Your task to perform on an android device: Add "razer naga" to the cart on target.com, then select checkout. Image 0: 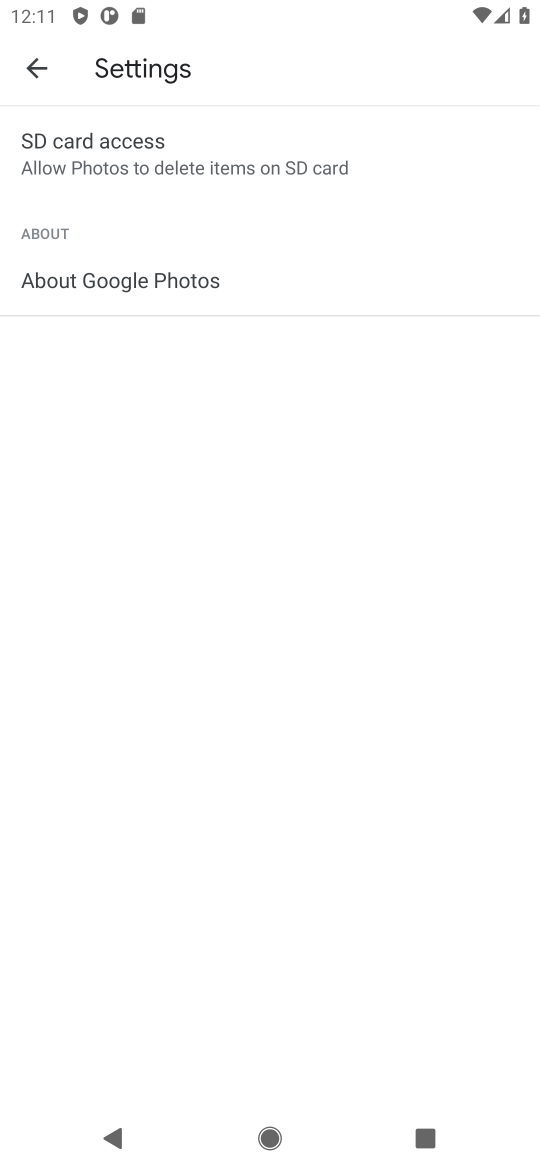
Step 0: press home button
Your task to perform on an android device: Add "razer naga" to the cart on target.com, then select checkout. Image 1: 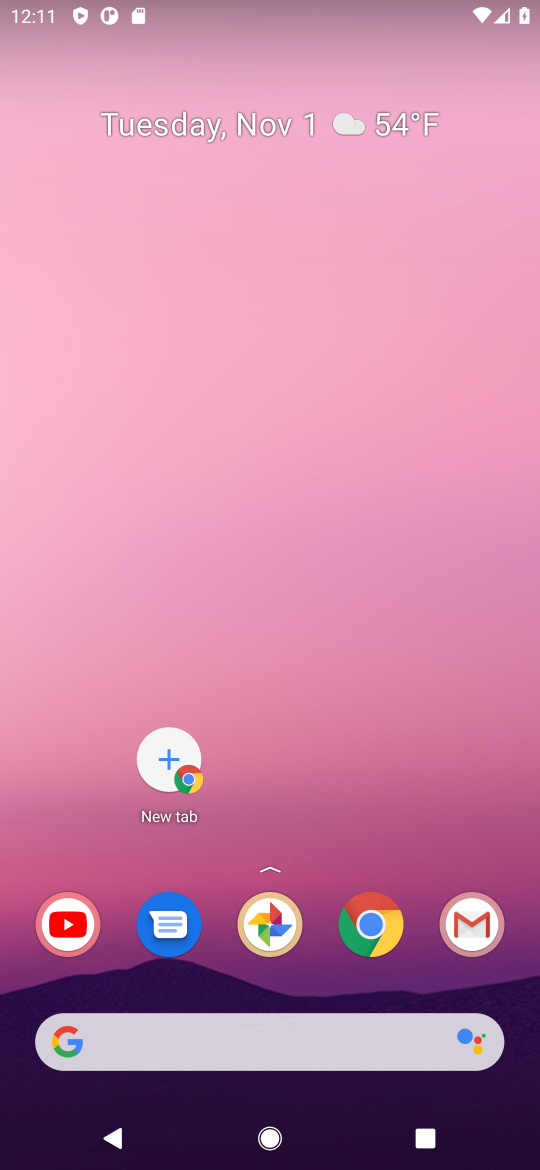
Step 1: click (366, 930)
Your task to perform on an android device: Add "razer naga" to the cart on target.com, then select checkout. Image 2: 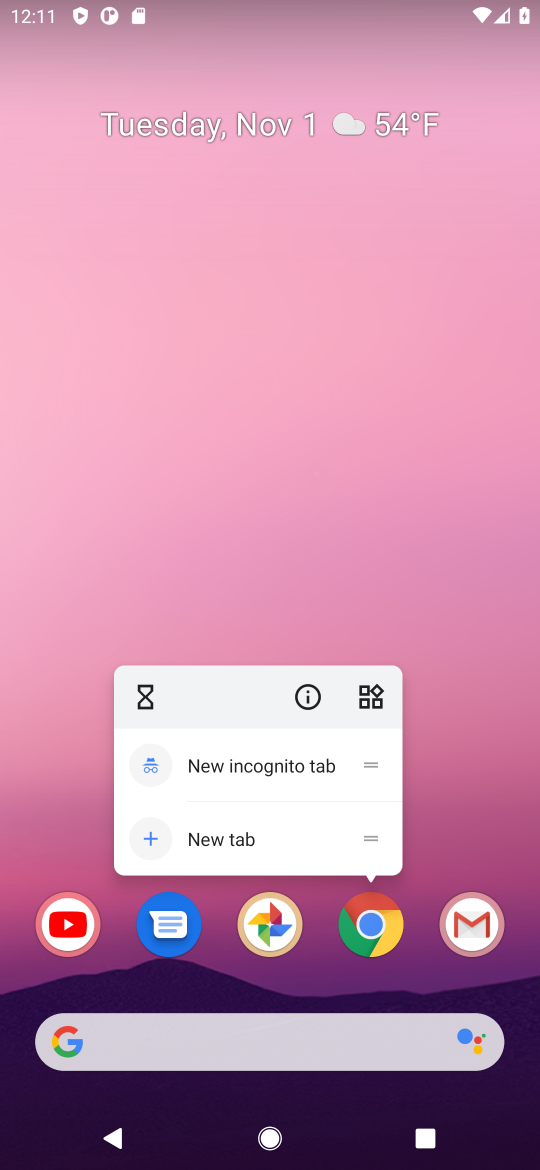
Step 2: click (372, 924)
Your task to perform on an android device: Add "razer naga" to the cart on target.com, then select checkout. Image 3: 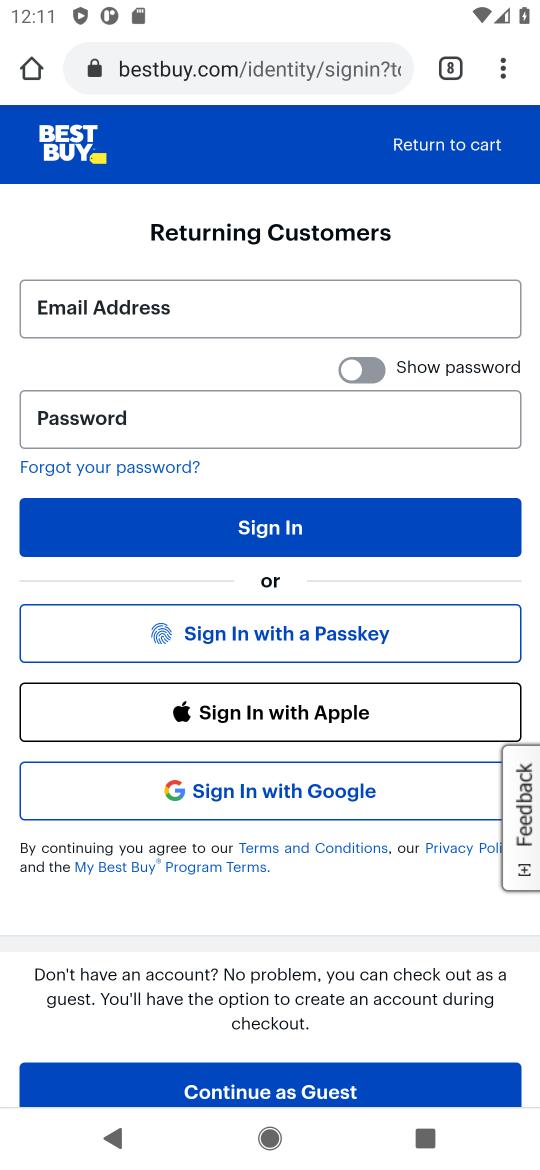
Step 3: click (215, 69)
Your task to perform on an android device: Add "razer naga" to the cart on target.com, then select checkout. Image 4: 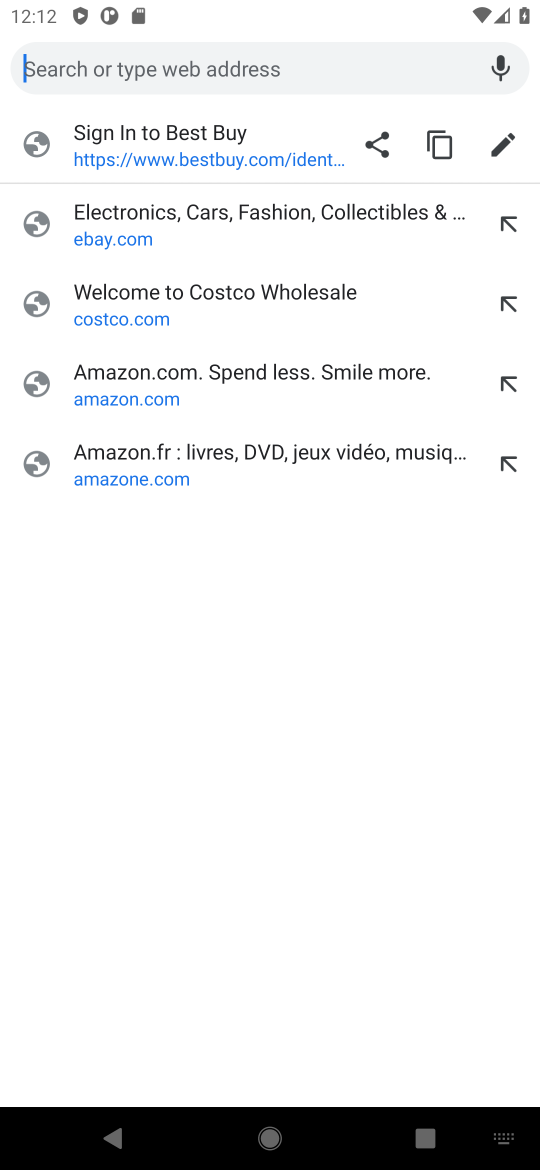
Step 4: type "target.com"
Your task to perform on an android device: Add "razer naga" to the cart on target.com, then select checkout. Image 5: 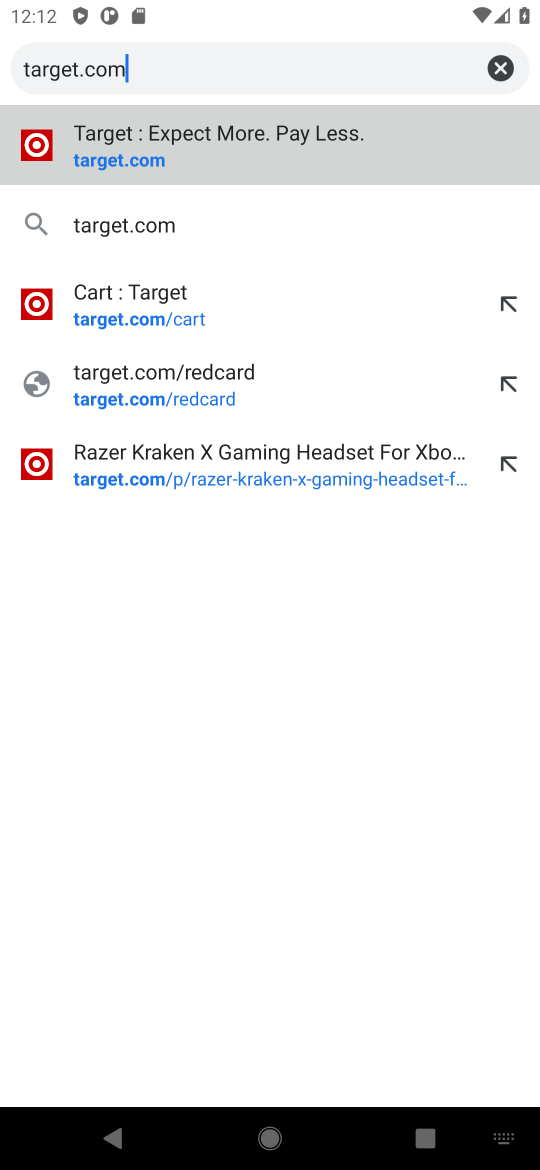
Step 5: click (111, 167)
Your task to perform on an android device: Add "razer naga" to the cart on target.com, then select checkout. Image 6: 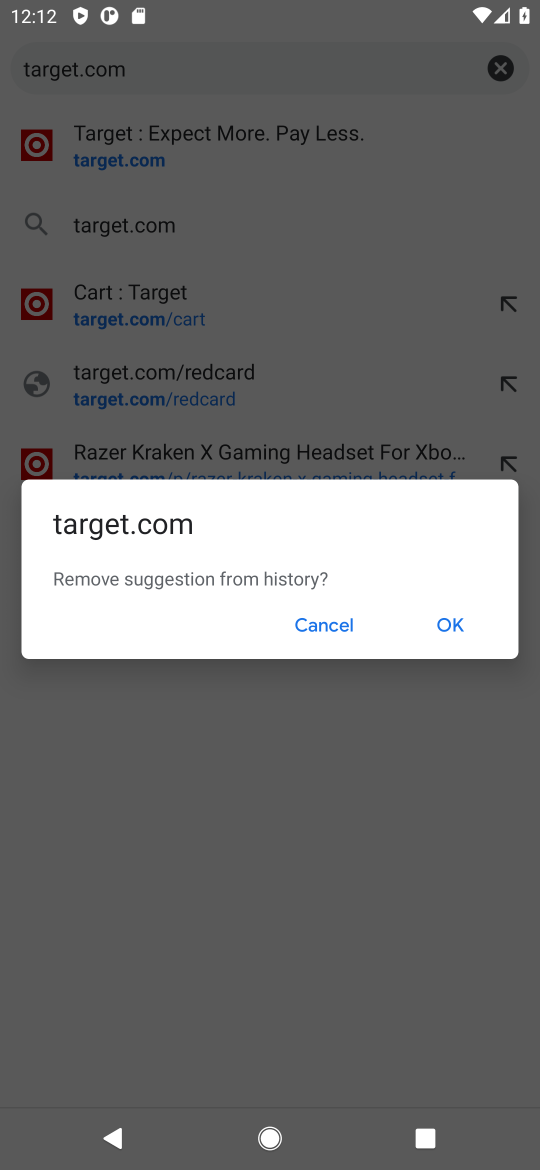
Step 6: click (442, 614)
Your task to perform on an android device: Add "razer naga" to the cart on target.com, then select checkout. Image 7: 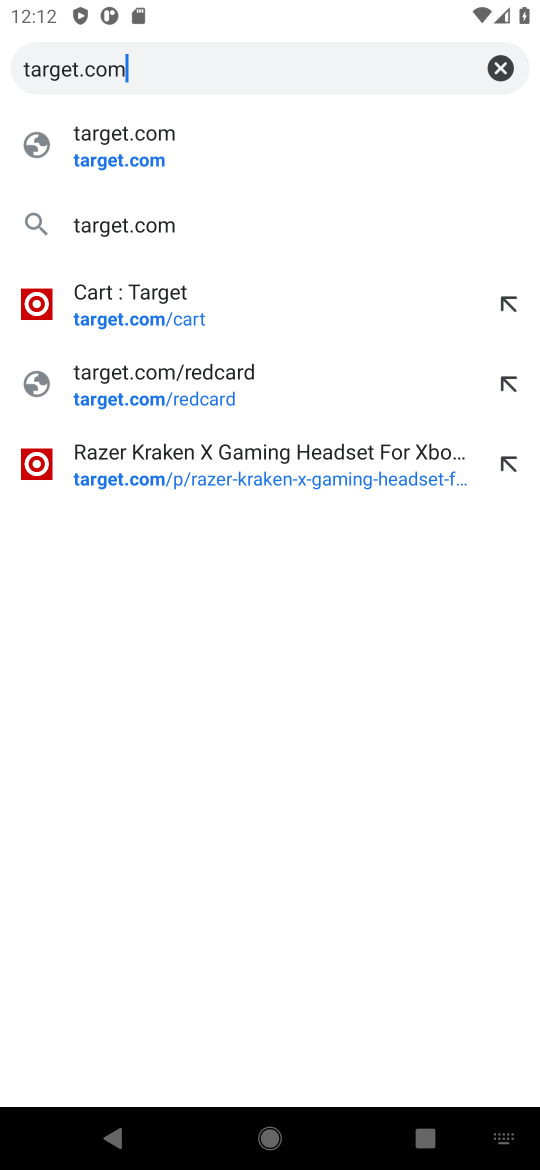
Step 7: click (148, 473)
Your task to perform on an android device: Add "razer naga" to the cart on target.com, then select checkout. Image 8: 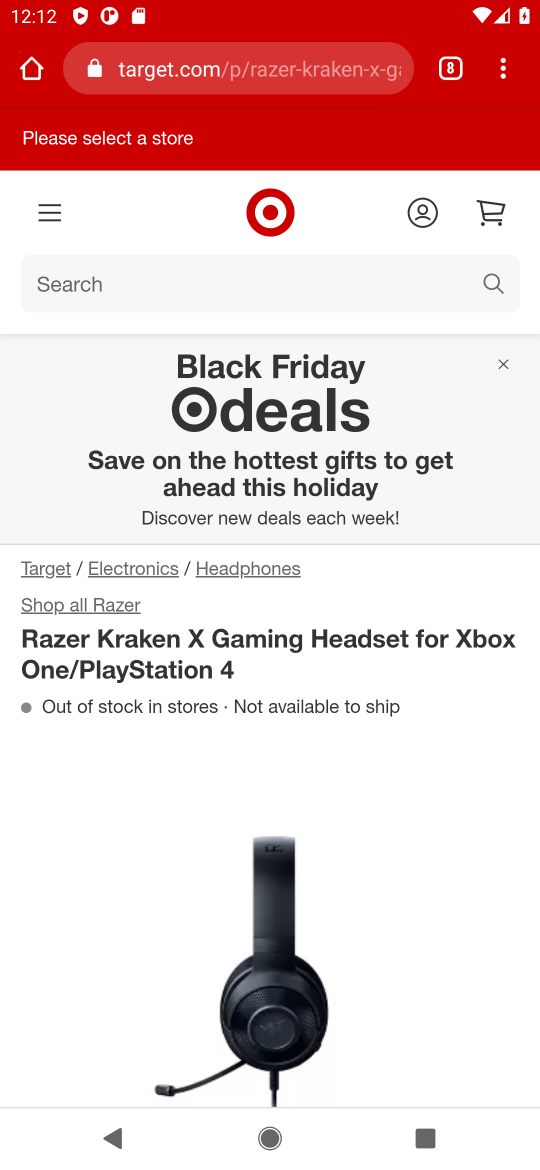
Step 8: click (481, 287)
Your task to perform on an android device: Add "razer naga" to the cart on target.com, then select checkout. Image 9: 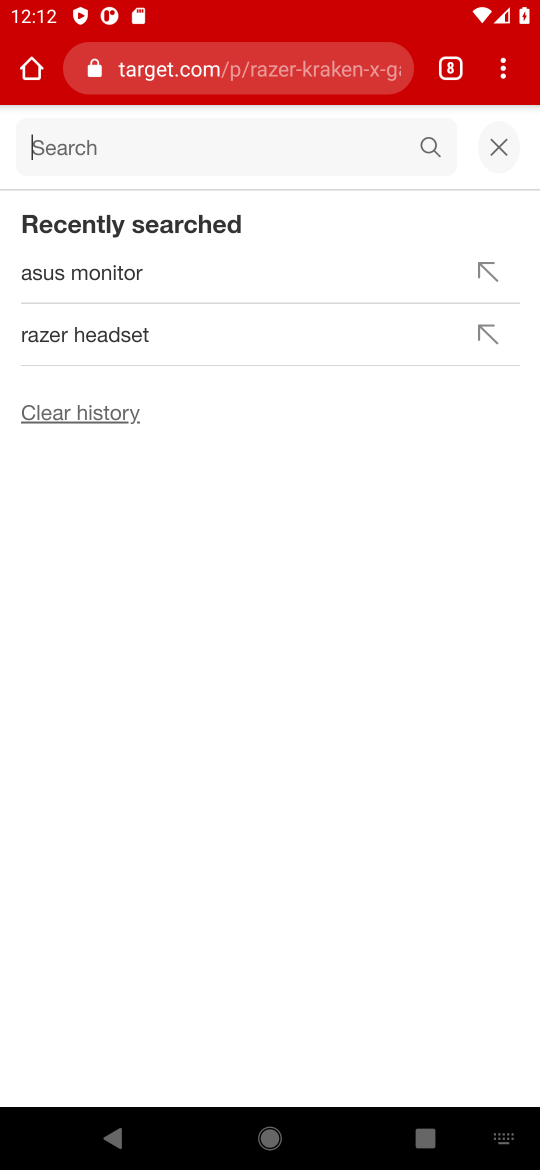
Step 9: type "razer naga"
Your task to perform on an android device: Add "razer naga" to the cart on target.com, then select checkout. Image 10: 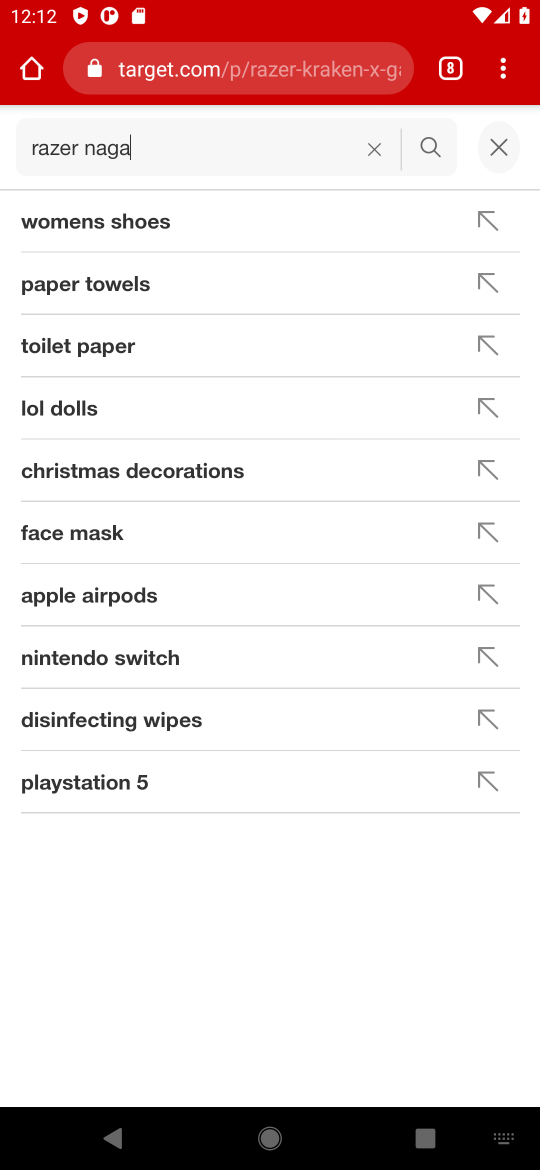
Step 10: type ""
Your task to perform on an android device: Add "razer naga" to the cart on target.com, then select checkout. Image 11: 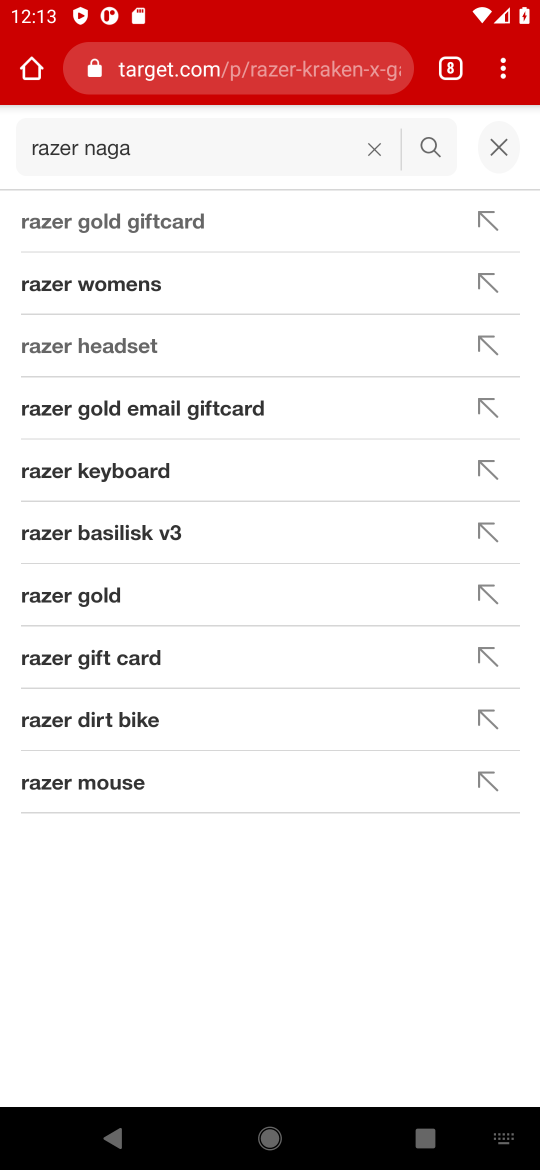
Step 11: click (428, 143)
Your task to perform on an android device: Add "razer naga" to the cart on target.com, then select checkout. Image 12: 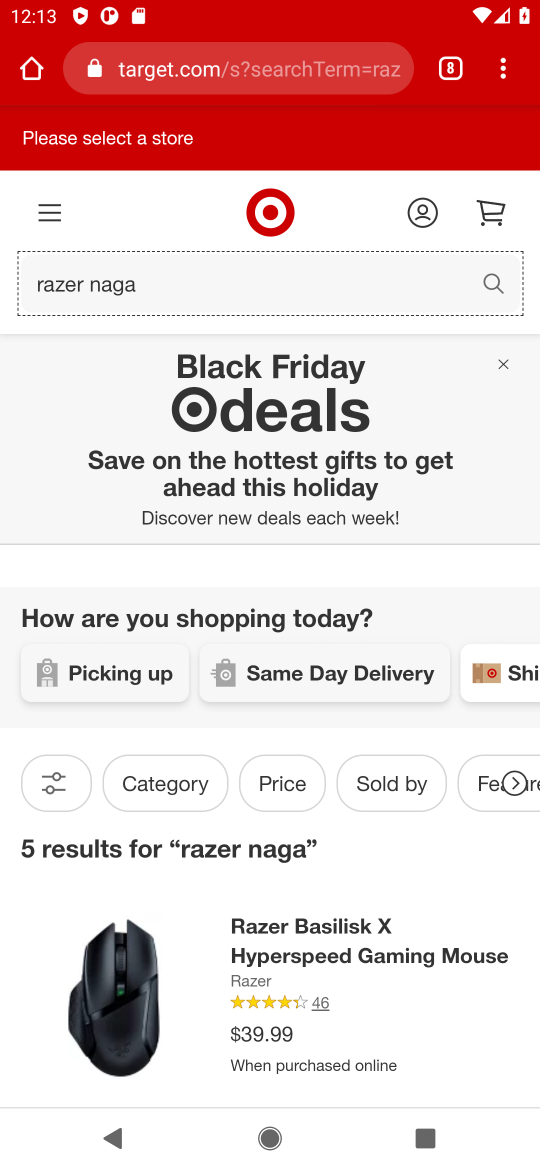
Step 12: drag from (223, 998) to (323, 441)
Your task to perform on an android device: Add "razer naga" to the cart on target.com, then select checkout. Image 13: 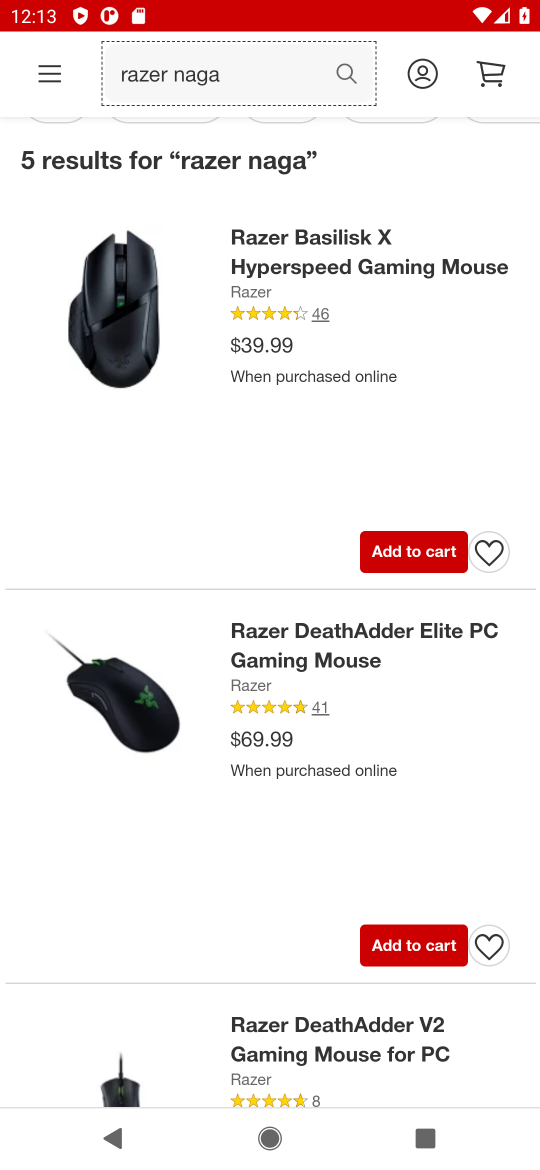
Step 13: click (418, 548)
Your task to perform on an android device: Add "razer naga" to the cart on target.com, then select checkout. Image 14: 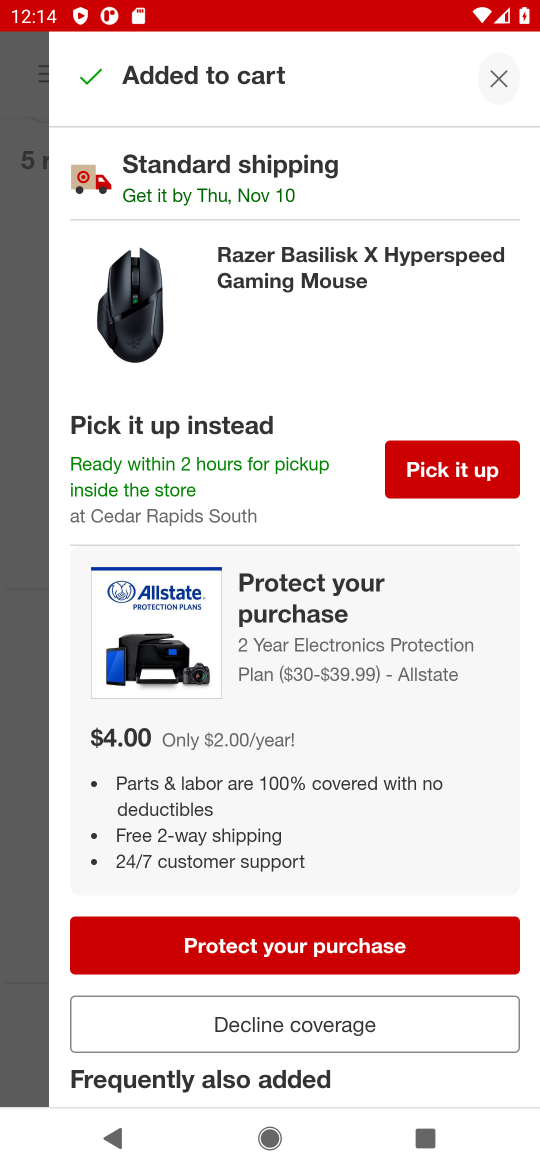
Step 14: click (411, 830)
Your task to perform on an android device: Add "razer naga" to the cart on target.com, then select checkout. Image 15: 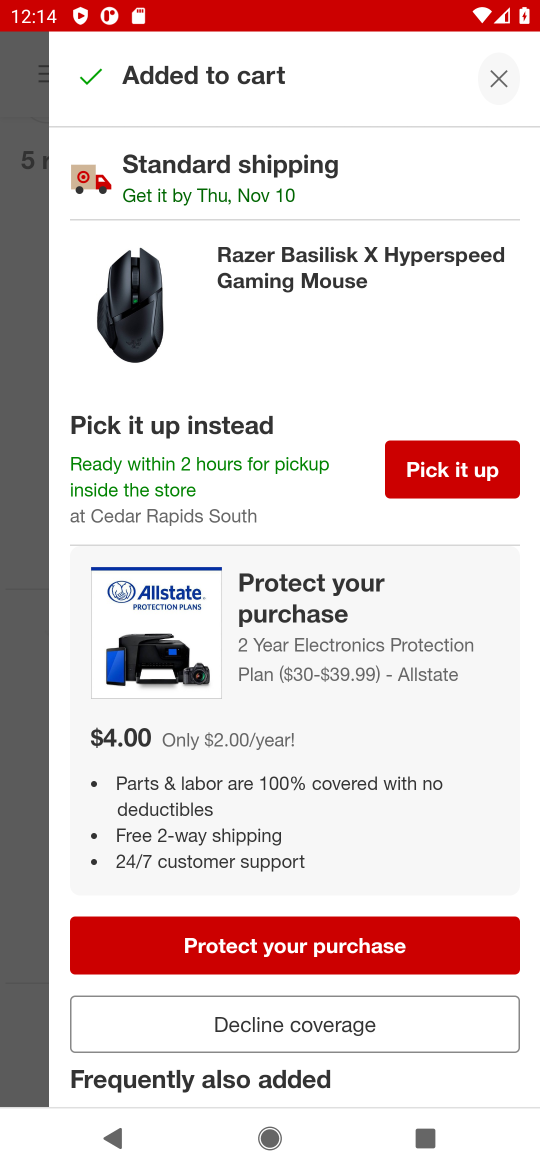
Step 15: click (418, 476)
Your task to perform on an android device: Add "razer naga" to the cart on target.com, then select checkout. Image 16: 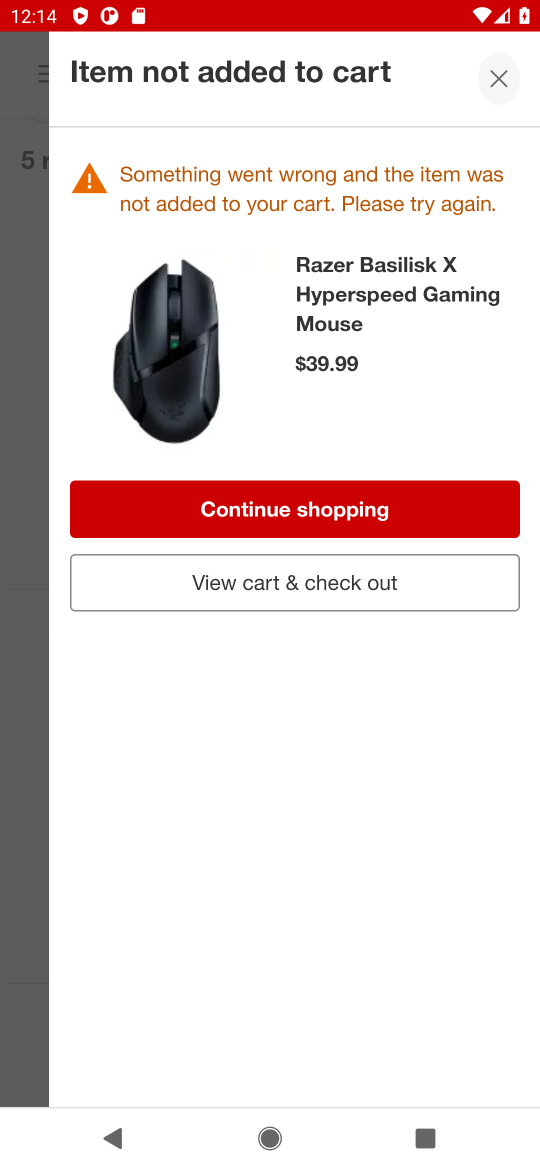
Step 16: click (302, 588)
Your task to perform on an android device: Add "razer naga" to the cart on target.com, then select checkout. Image 17: 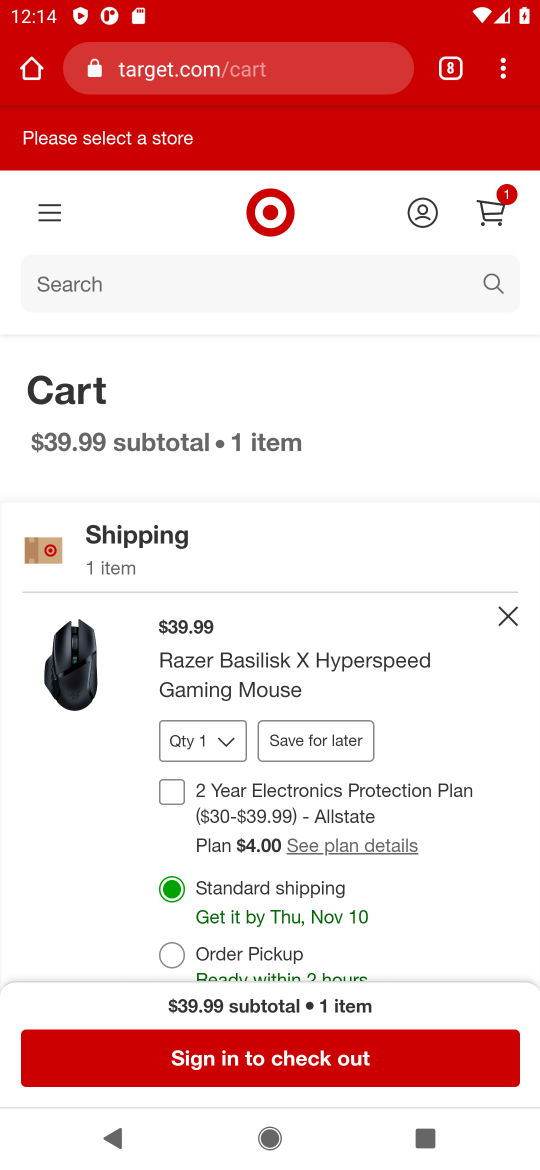
Step 17: task complete